Your task to perform on an android device: Open internet settings Image 0: 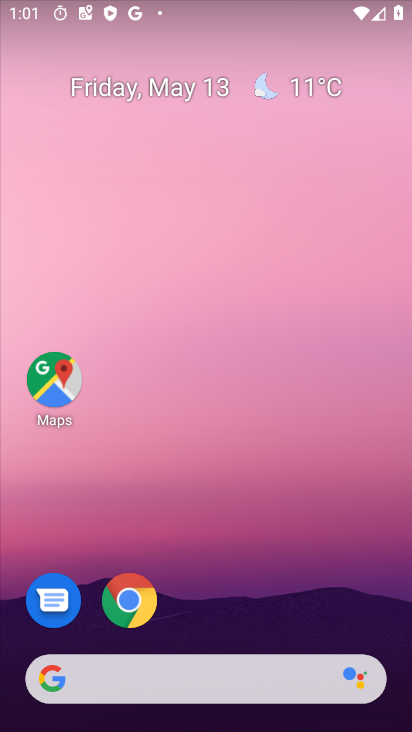
Step 0: drag from (283, 571) to (381, 176)
Your task to perform on an android device: Open internet settings Image 1: 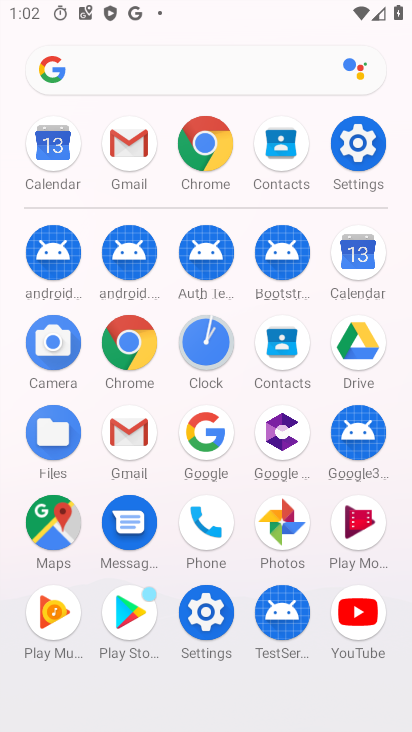
Step 1: click (376, 160)
Your task to perform on an android device: Open internet settings Image 2: 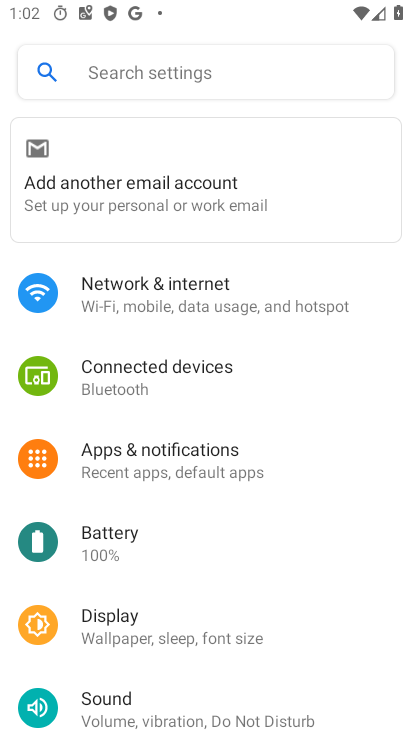
Step 2: click (224, 282)
Your task to perform on an android device: Open internet settings Image 3: 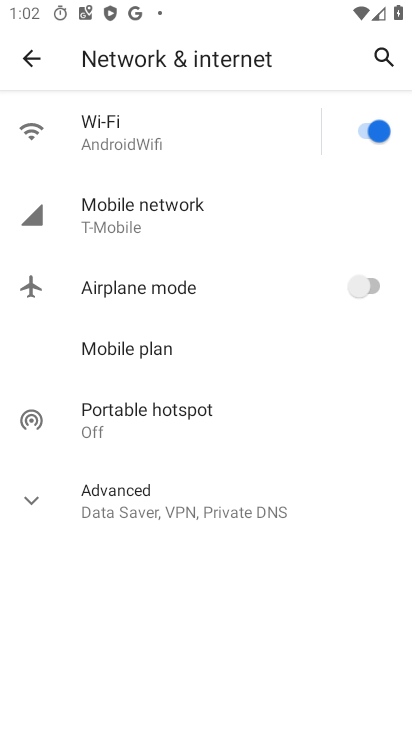
Step 3: task complete